Your task to perform on an android device: turn on data saver in the chrome app Image 0: 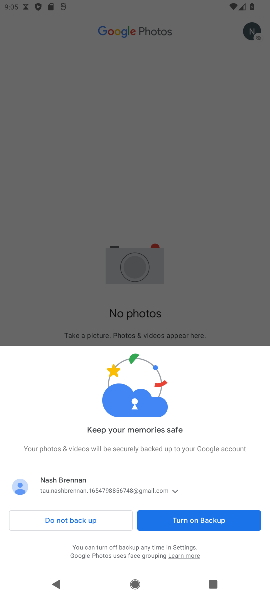
Step 0: press home button
Your task to perform on an android device: turn on data saver in the chrome app Image 1: 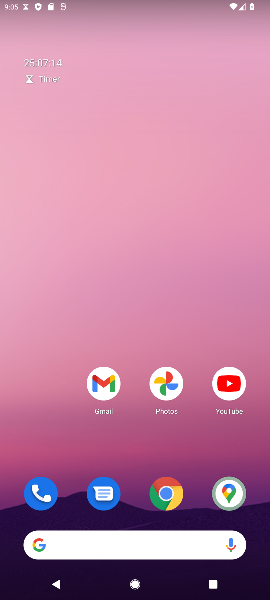
Step 1: drag from (27, 468) to (105, 81)
Your task to perform on an android device: turn on data saver in the chrome app Image 2: 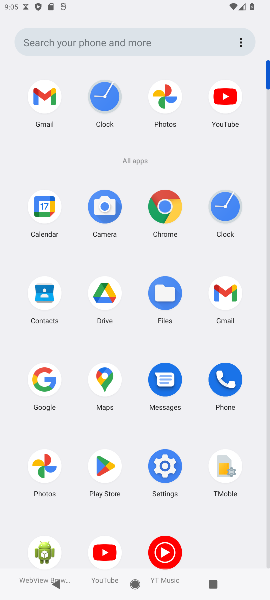
Step 2: click (163, 214)
Your task to perform on an android device: turn on data saver in the chrome app Image 3: 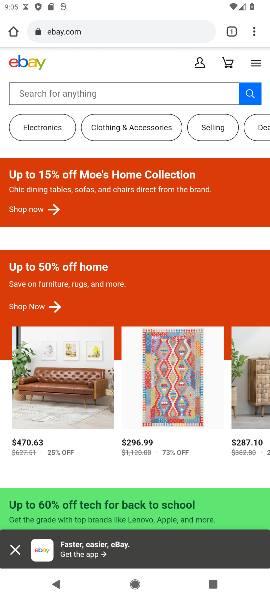
Step 3: drag from (249, 32) to (181, 409)
Your task to perform on an android device: turn on data saver in the chrome app Image 4: 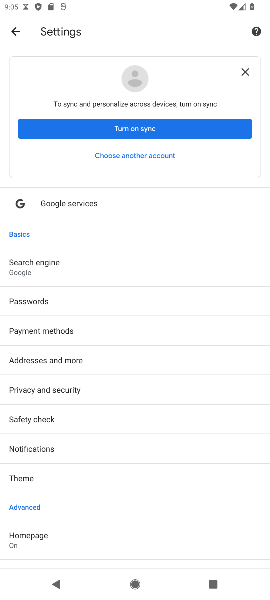
Step 4: drag from (135, 514) to (160, 228)
Your task to perform on an android device: turn on data saver in the chrome app Image 5: 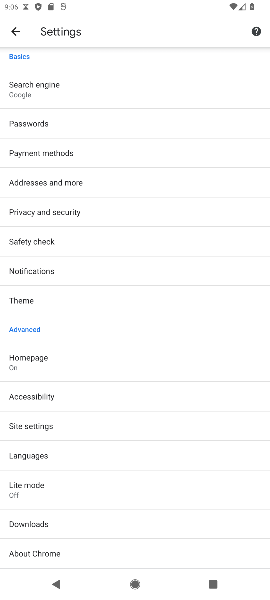
Step 5: click (62, 498)
Your task to perform on an android device: turn on data saver in the chrome app Image 6: 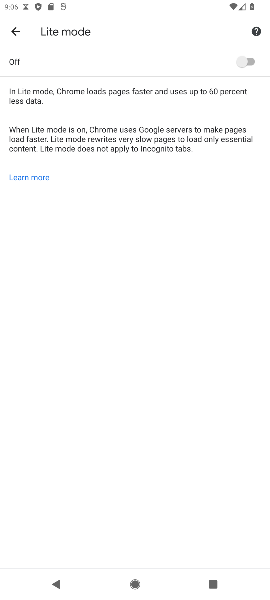
Step 6: click (251, 63)
Your task to perform on an android device: turn on data saver in the chrome app Image 7: 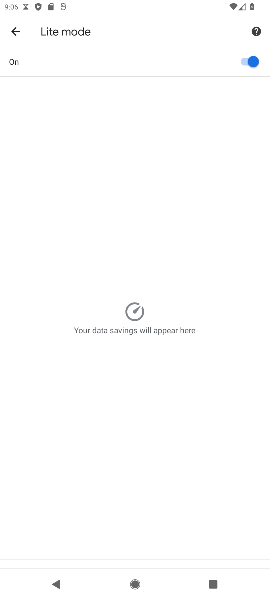
Step 7: task complete